Your task to perform on an android device: manage bookmarks in the chrome app Image 0: 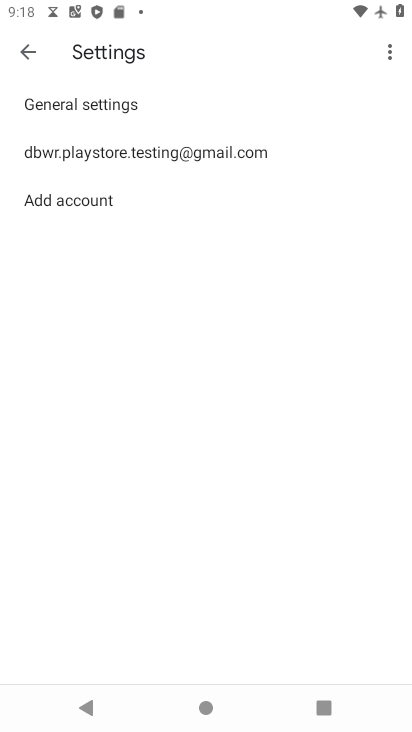
Step 0: press home button
Your task to perform on an android device: manage bookmarks in the chrome app Image 1: 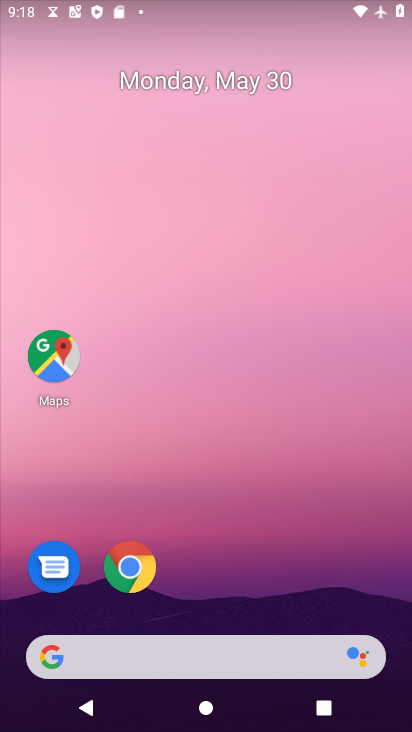
Step 1: press home button
Your task to perform on an android device: manage bookmarks in the chrome app Image 2: 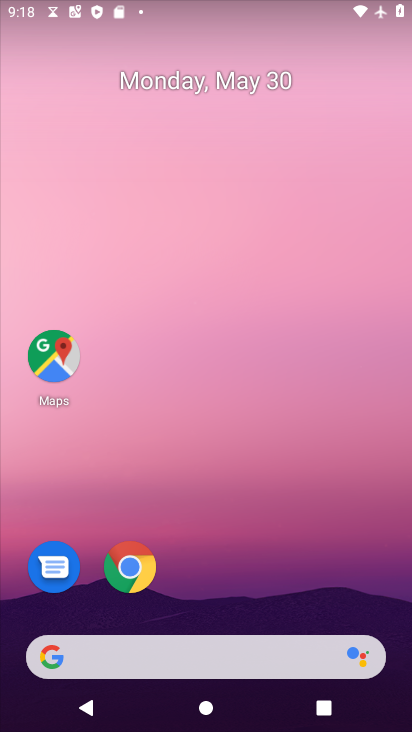
Step 2: click (138, 561)
Your task to perform on an android device: manage bookmarks in the chrome app Image 3: 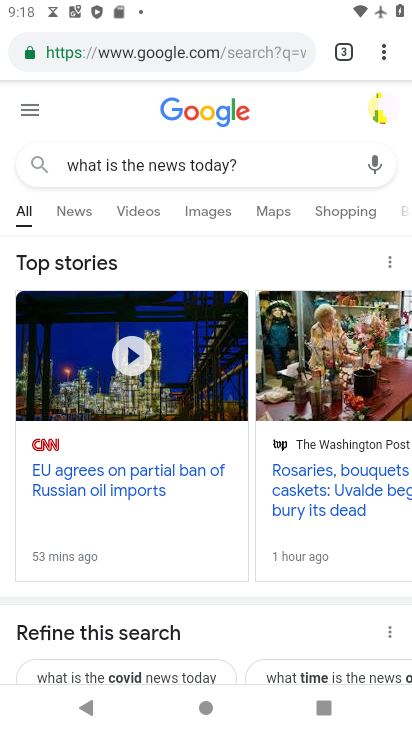
Step 3: click (383, 54)
Your task to perform on an android device: manage bookmarks in the chrome app Image 4: 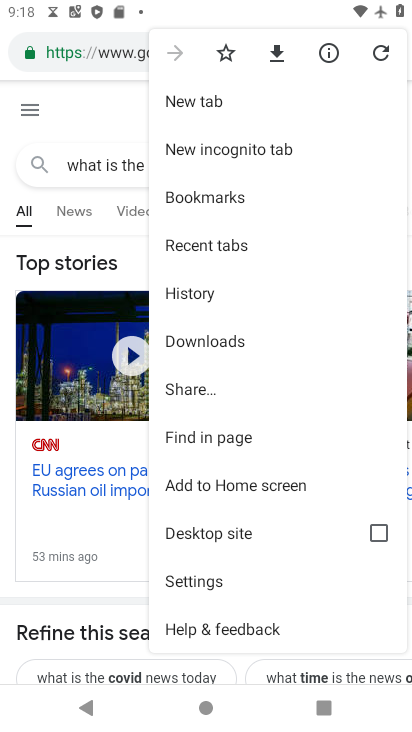
Step 4: click (244, 194)
Your task to perform on an android device: manage bookmarks in the chrome app Image 5: 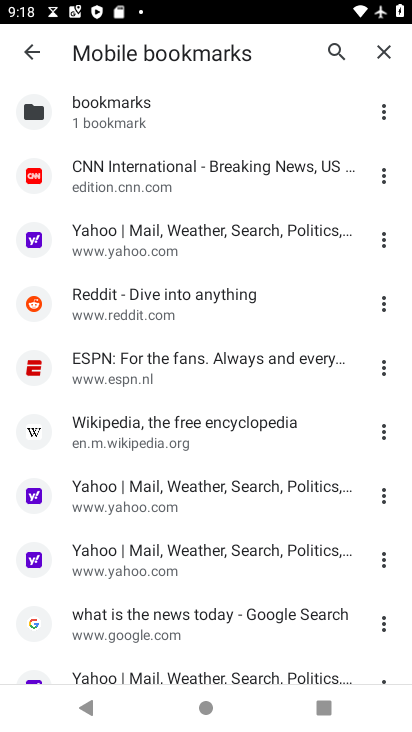
Step 5: click (214, 169)
Your task to perform on an android device: manage bookmarks in the chrome app Image 6: 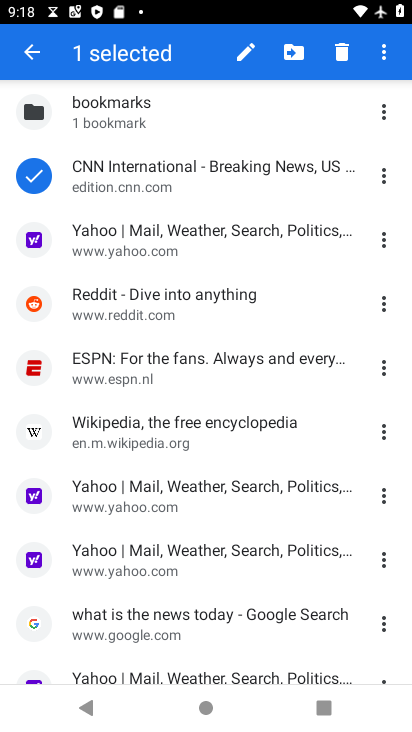
Step 6: click (291, 49)
Your task to perform on an android device: manage bookmarks in the chrome app Image 7: 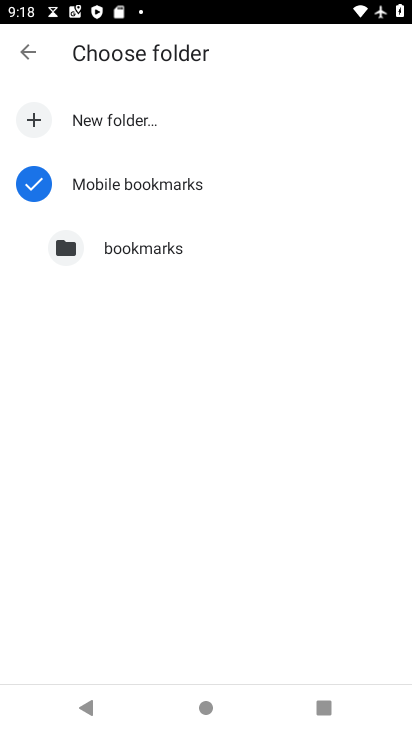
Step 7: click (149, 241)
Your task to perform on an android device: manage bookmarks in the chrome app Image 8: 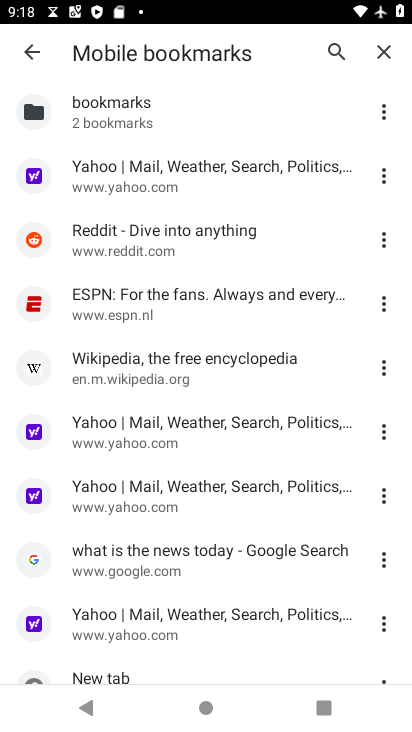
Step 8: task complete